Your task to perform on an android device: open sync settings in chrome Image 0: 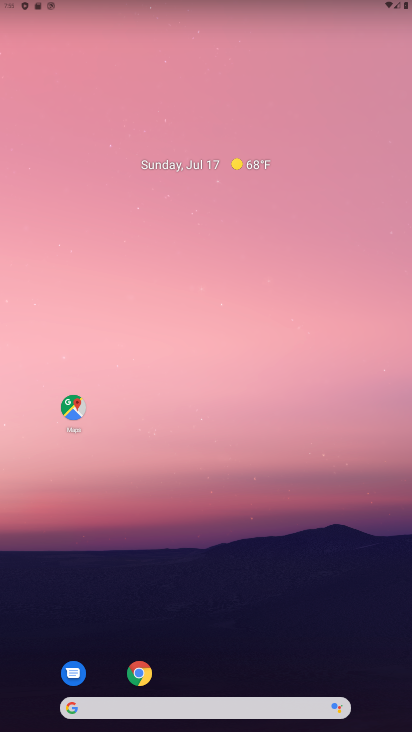
Step 0: drag from (285, 625) to (323, 165)
Your task to perform on an android device: open sync settings in chrome Image 1: 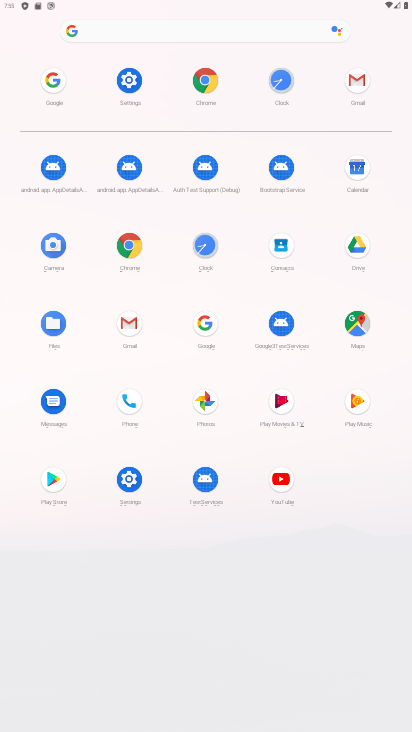
Step 1: click (202, 74)
Your task to perform on an android device: open sync settings in chrome Image 2: 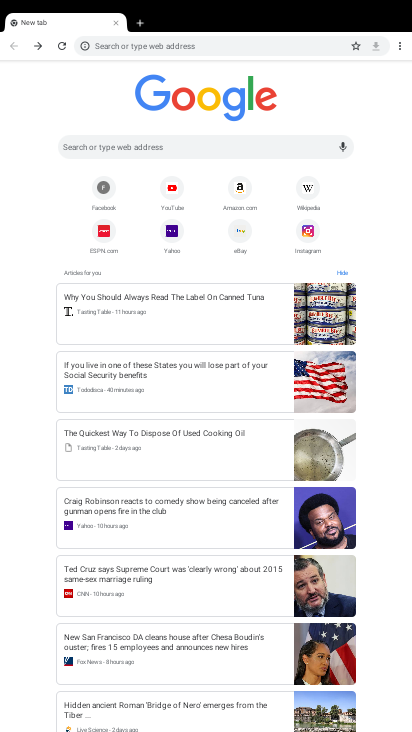
Step 2: drag from (400, 46) to (322, 217)
Your task to perform on an android device: open sync settings in chrome Image 3: 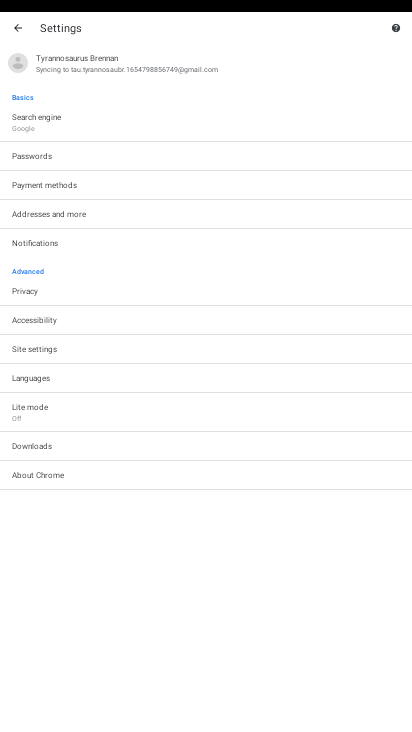
Step 3: click (35, 344)
Your task to perform on an android device: open sync settings in chrome Image 4: 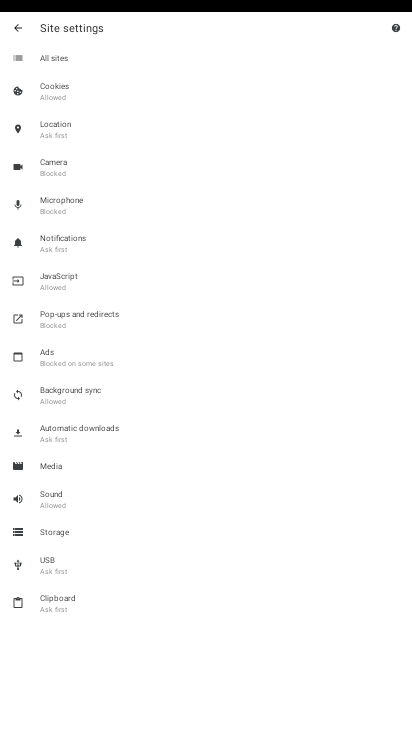
Step 4: click (67, 398)
Your task to perform on an android device: open sync settings in chrome Image 5: 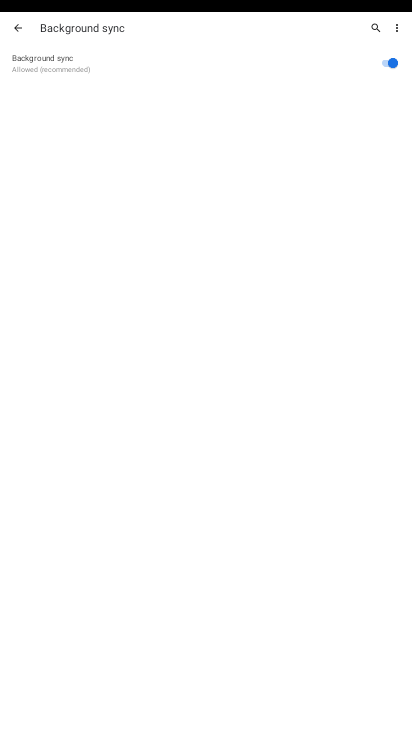
Step 5: task complete